Your task to perform on an android device: turn on wifi Image 0: 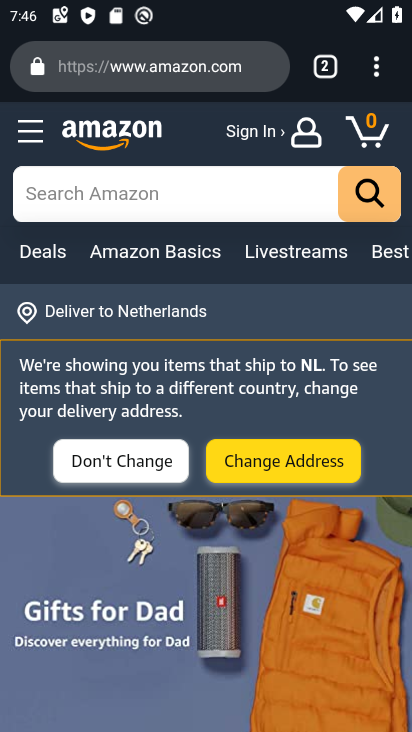
Step 0: press home button
Your task to perform on an android device: turn on wifi Image 1: 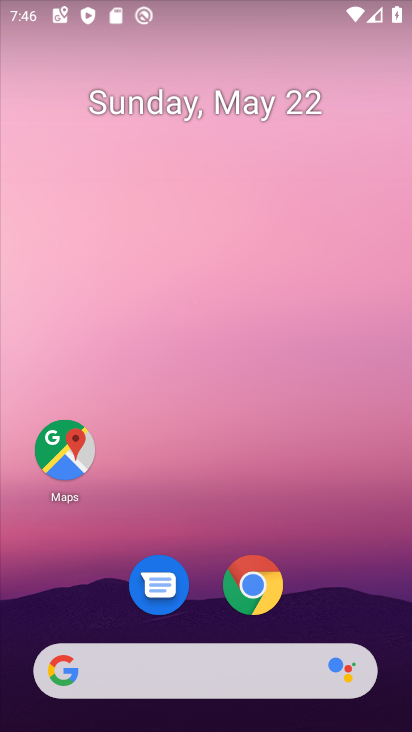
Step 1: drag from (231, 489) to (203, 21)
Your task to perform on an android device: turn on wifi Image 2: 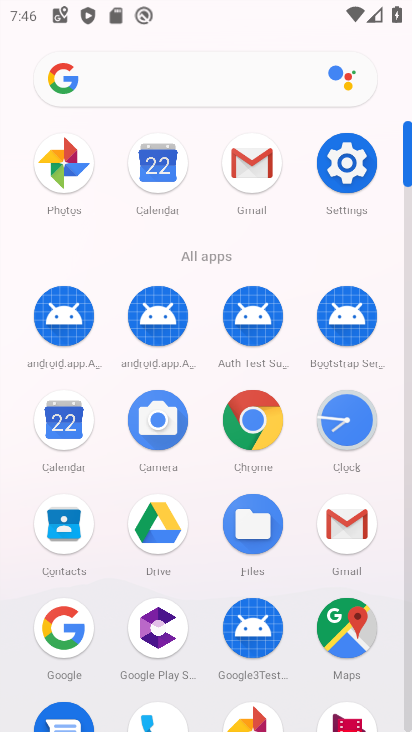
Step 2: click (334, 163)
Your task to perform on an android device: turn on wifi Image 3: 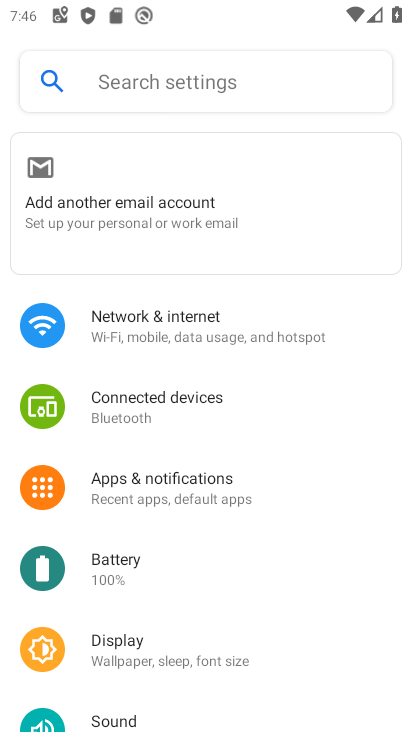
Step 3: click (170, 325)
Your task to perform on an android device: turn on wifi Image 4: 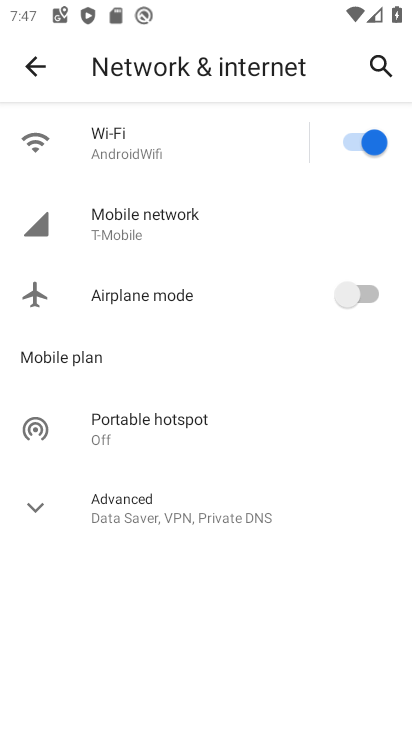
Step 4: task complete